Your task to perform on an android device: delete a single message in the gmail app Image 0: 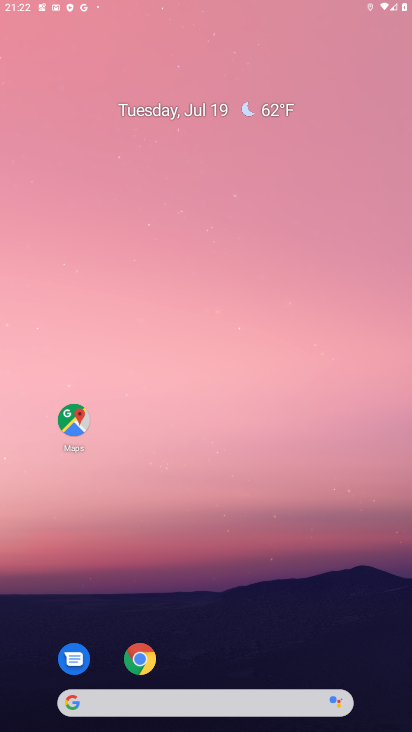
Step 0: press home button
Your task to perform on an android device: delete a single message in the gmail app Image 1: 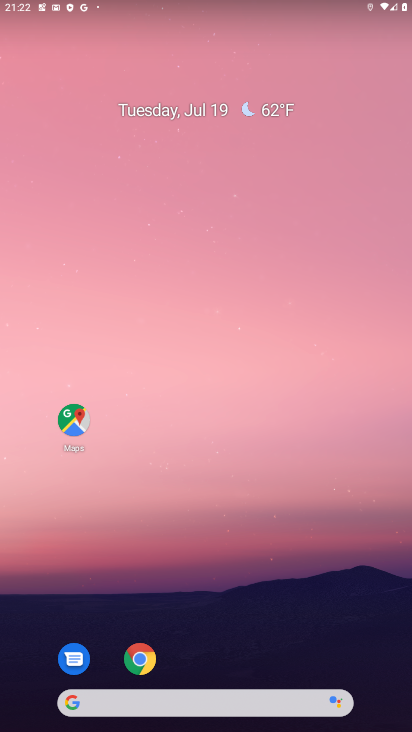
Step 1: drag from (316, 631) to (336, 2)
Your task to perform on an android device: delete a single message in the gmail app Image 2: 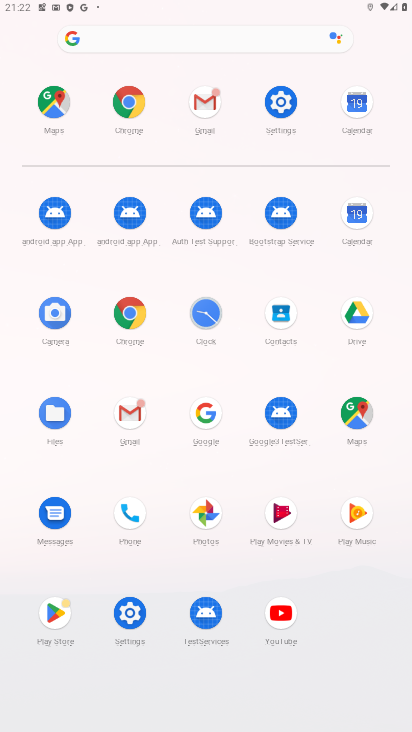
Step 2: click (123, 425)
Your task to perform on an android device: delete a single message in the gmail app Image 3: 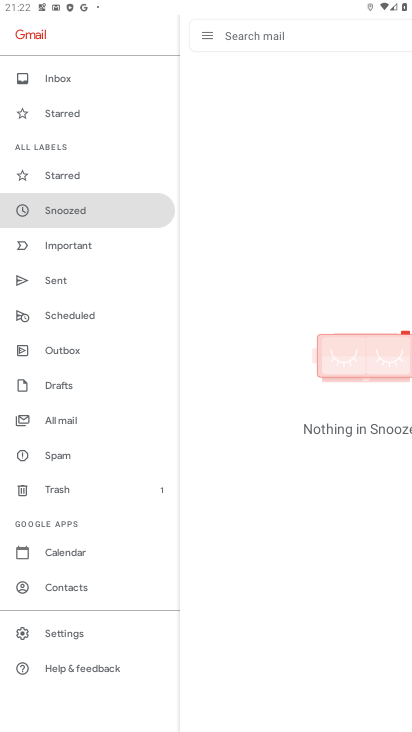
Step 3: task complete